Your task to perform on an android device: toggle location history Image 0: 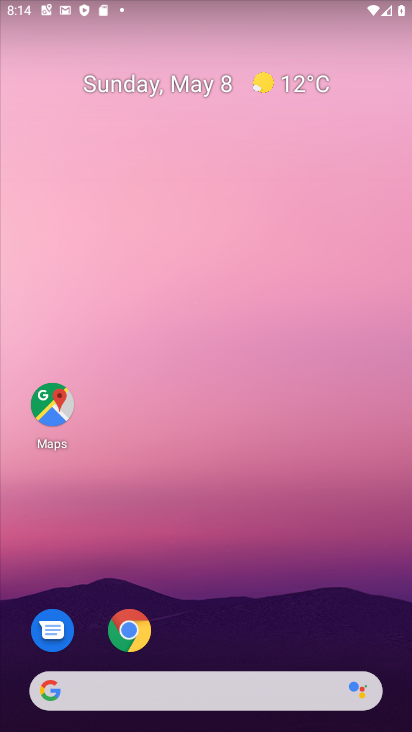
Step 0: drag from (293, 630) to (328, 144)
Your task to perform on an android device: toggle location history Image 1: 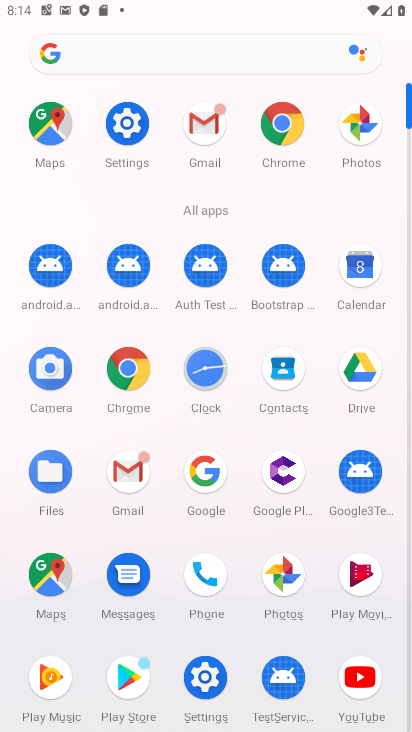
Step 1: click (117, 128)
Your task to perform on an android device: toggle location history Image 2: 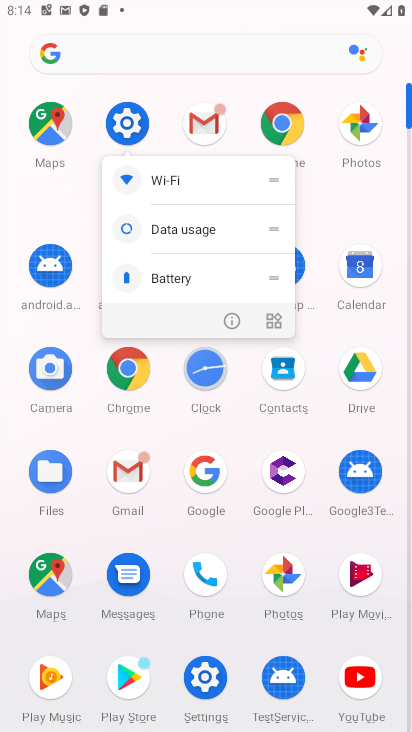
Step 2: click (117, 130)
Your task to perform on an android device: toggle location history Image 3: 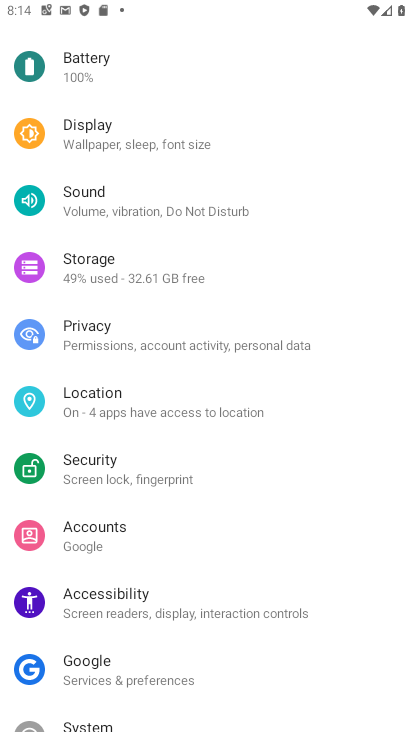
Step 3: click (130, 403)
Your task to perform on an android device: toggle location history Image 4: 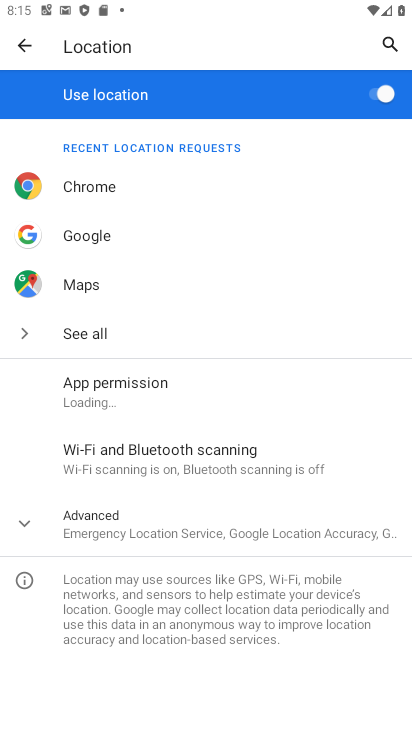
Step 4: click (143, 517)
Your task to perform on an android device: toggle location history Image 5: 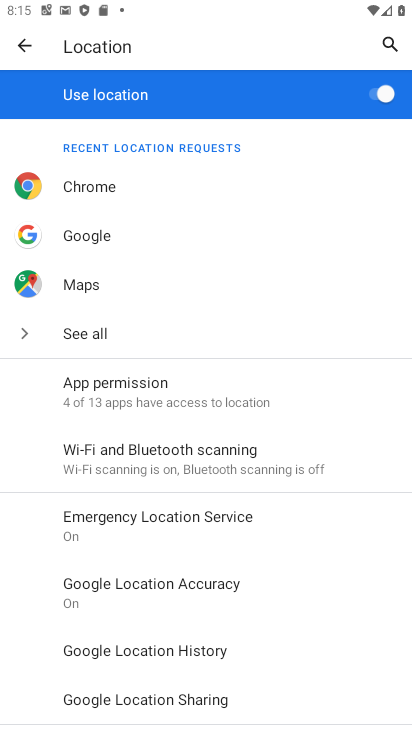
Step 5: click (166, 646)
Your task to perform on an android device: toggle location history Image 6: 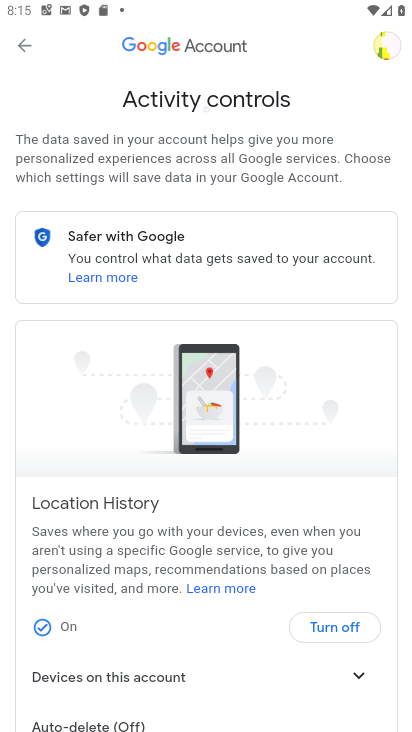
Step 6: click (347, 629)
Your task to perform on an android device: toggle location history Image 7: 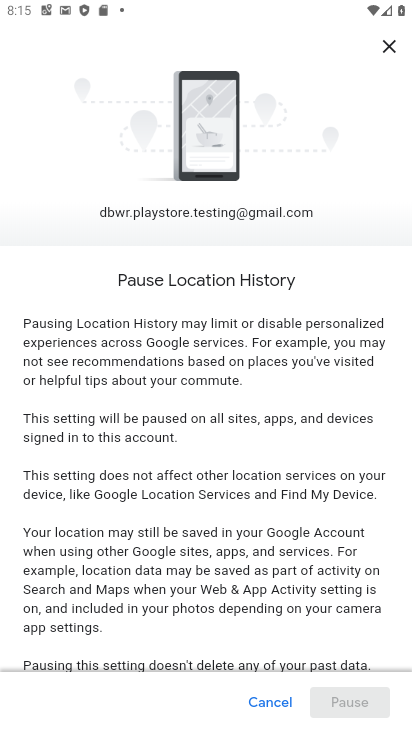
Step 7: click (347, 629)
Your task to perform on an android device: toggle location history Image 8: 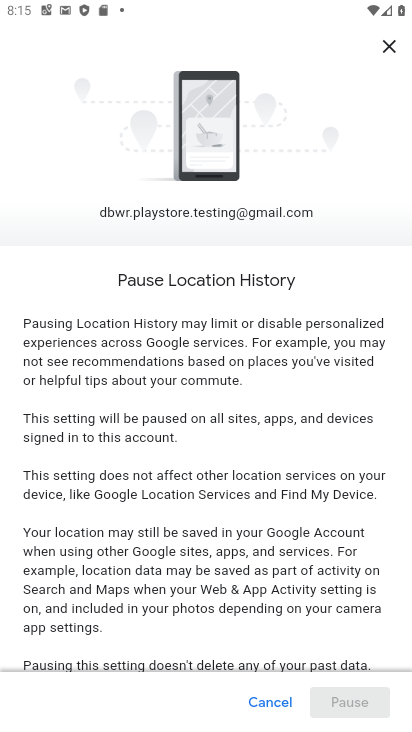
Step 8: drag from (367, 548) to (372, 186)
Your task to perform on an android device: toggle location history Image 9: 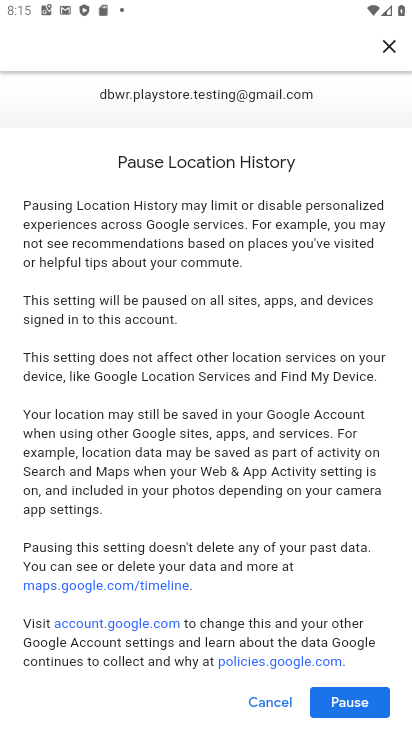
Step 9: click (354, 702)
Your task to perform on an android device: toggle location history Image 10: 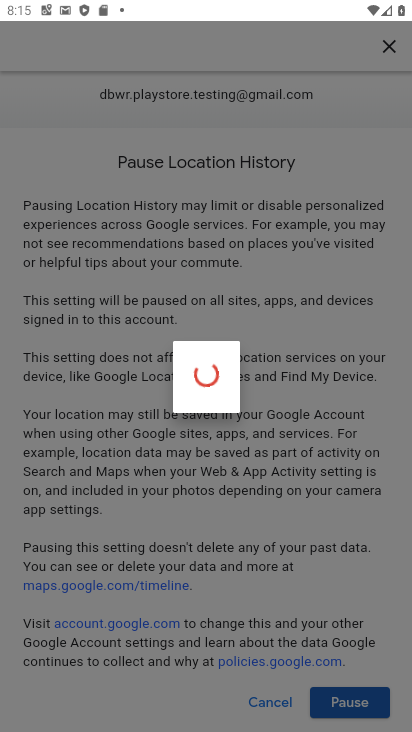
Step 10: click (354, 701)
Your task to perform on an android device: toggle location history Image 11: 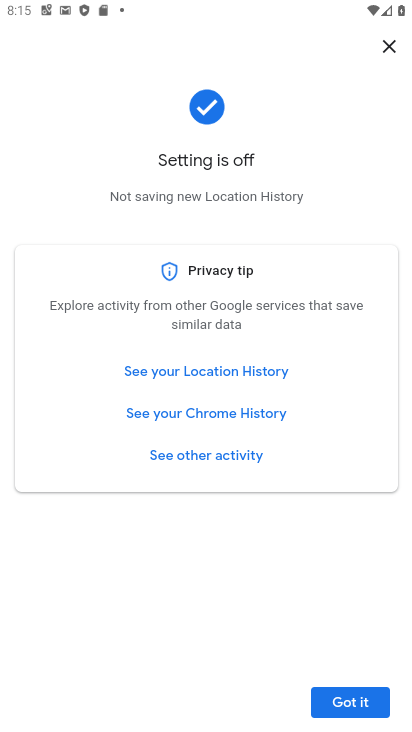
Step 11: click (354, 701)
Your task to perform on an android device: toggle location history Image 12: 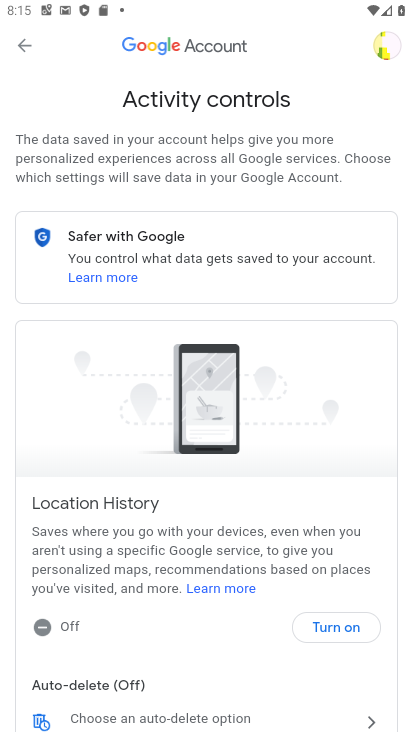
Step 12: task complete